Your task to perform on an android device: create a new album in the google photos Image 0: 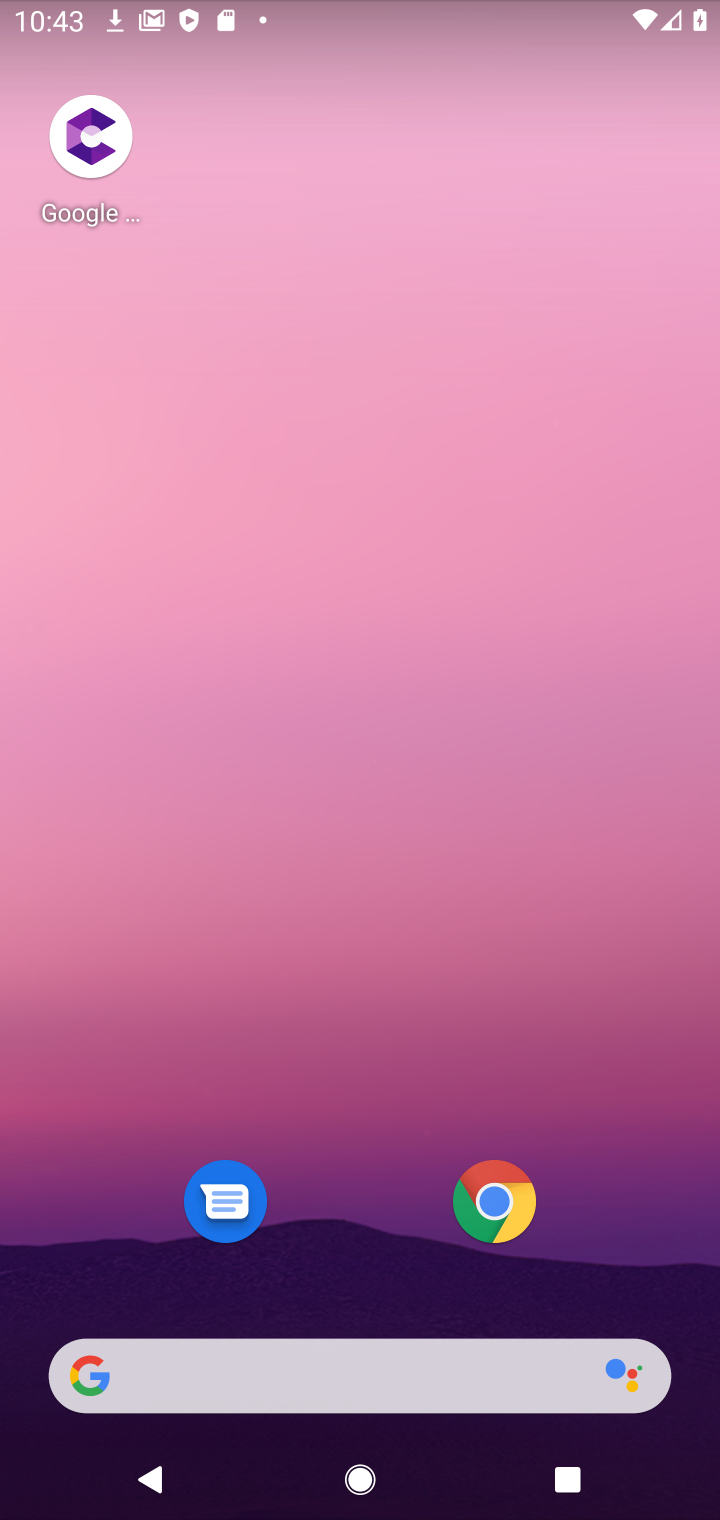
Step 0: drag from (294, 974) to (358, 215)
Your task to perform on an android device: create a new album in the google photos Image 1: 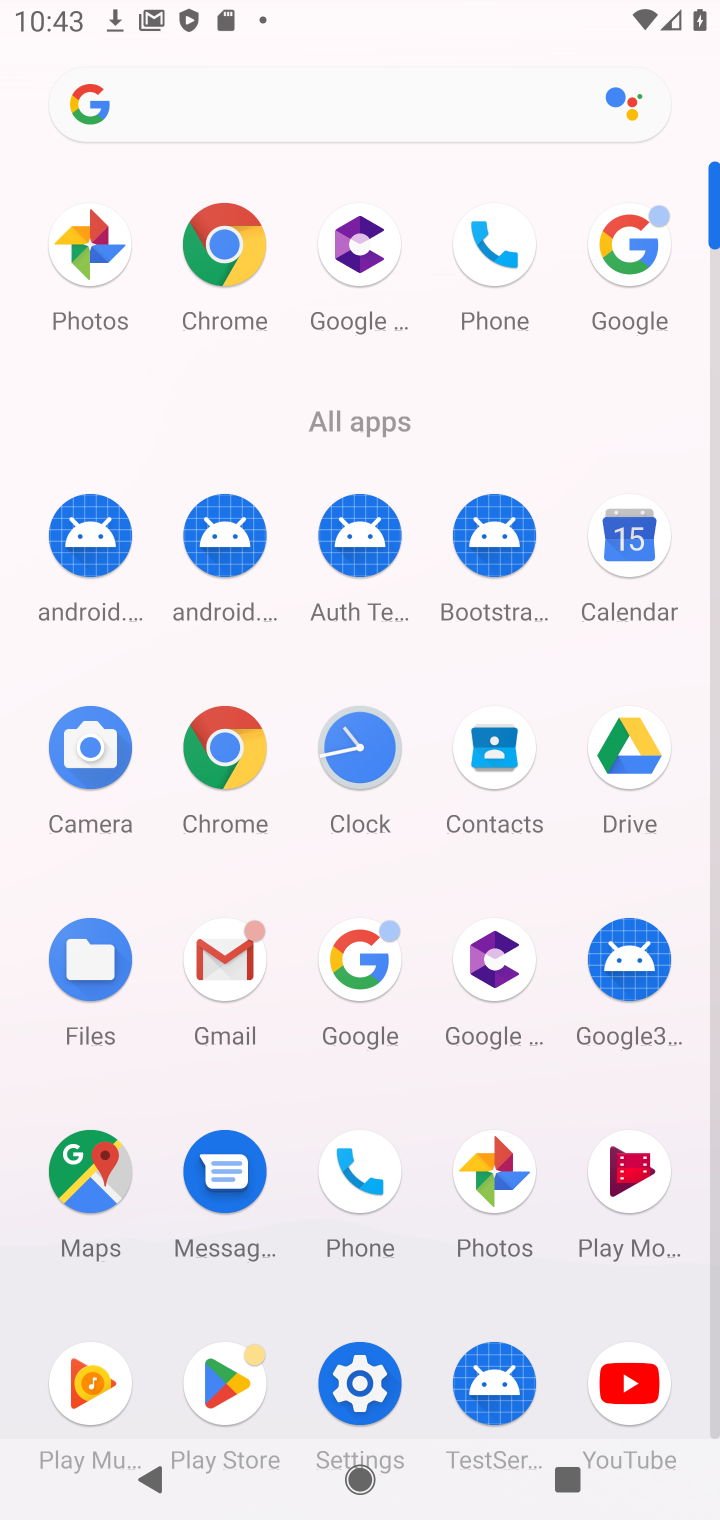
Step 1: click (489, 1183)
Your task to perform on an android device: create a new album in the google photos Image 2: 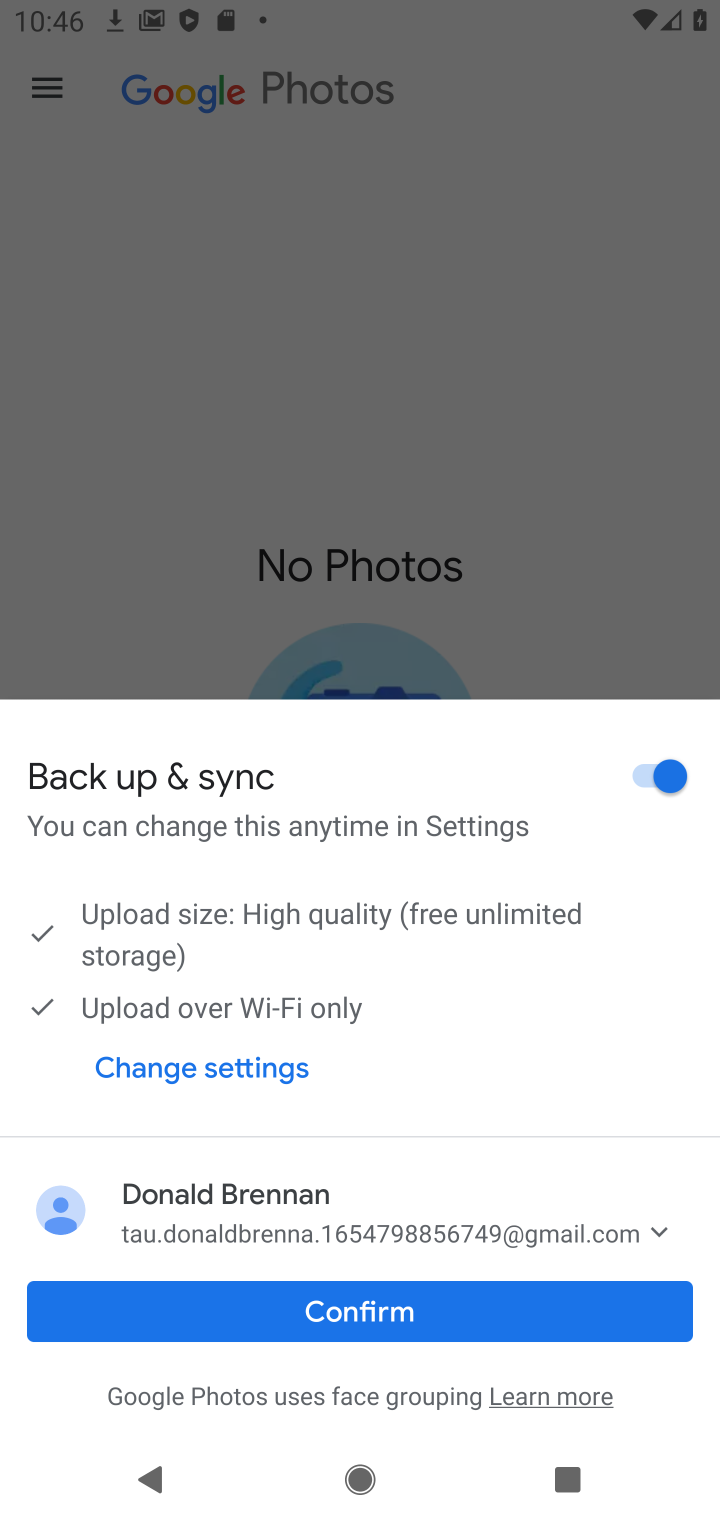
Step 2: task complete